Your task to perform on an android device: open sync settings in chrome Image 0: 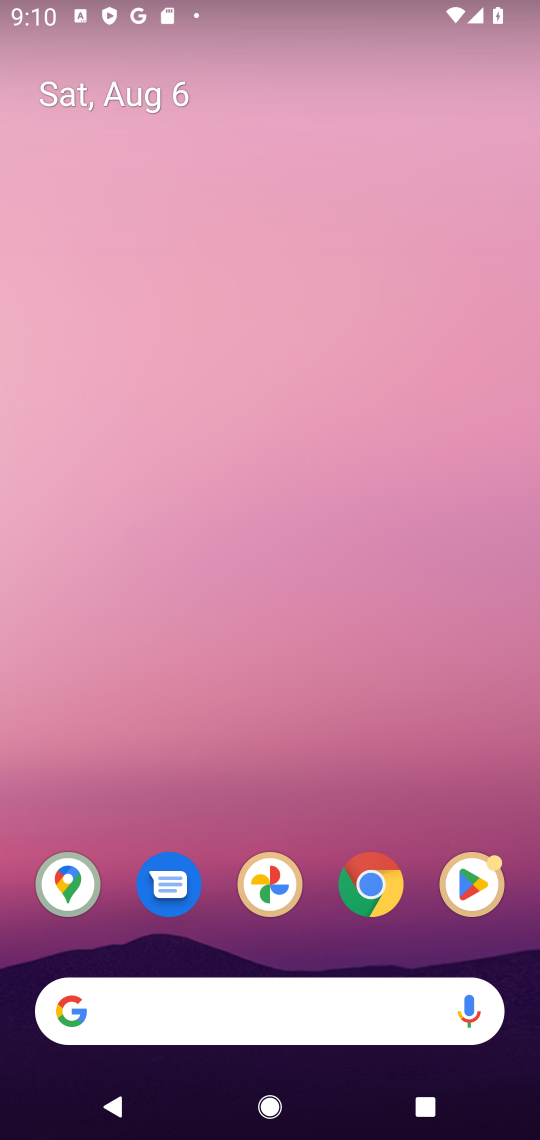
Step 0: click (369, 881)
Your task to perform on an android device: open sync settings in chrome Image 1: 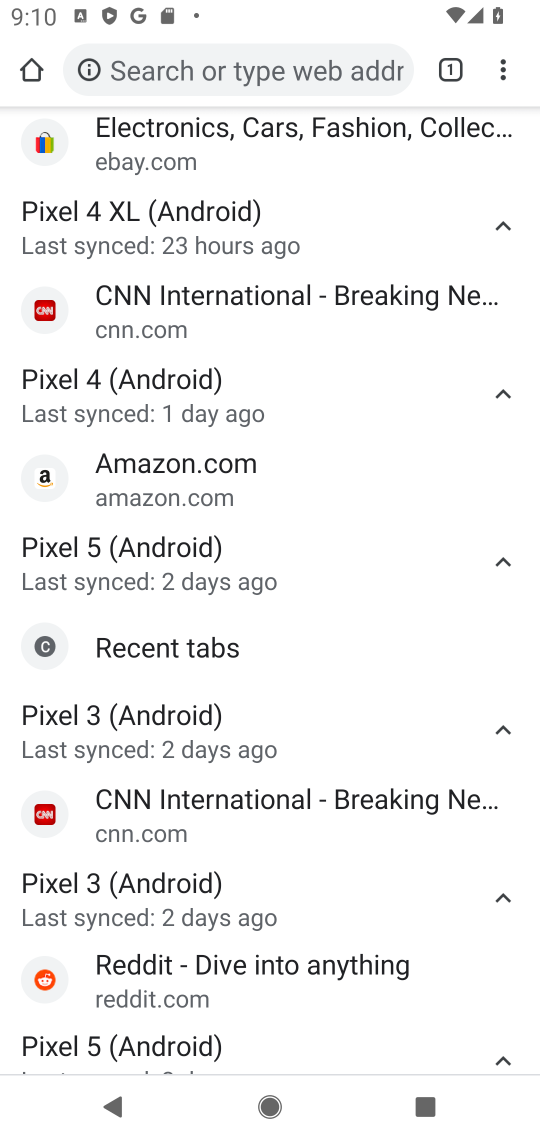
Step 1: click (493, 75)
Your task to perform on an android device: open sync settings in chrome Image 2: 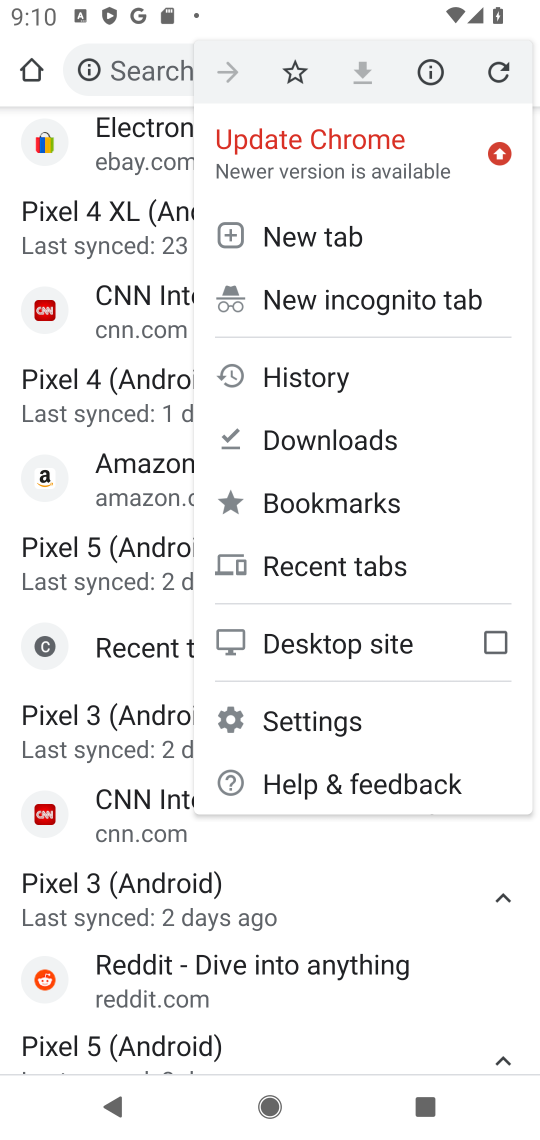
Step 2: click (296, 717)
Your task to perform on an android device: open sync settings in chrome Image 3: 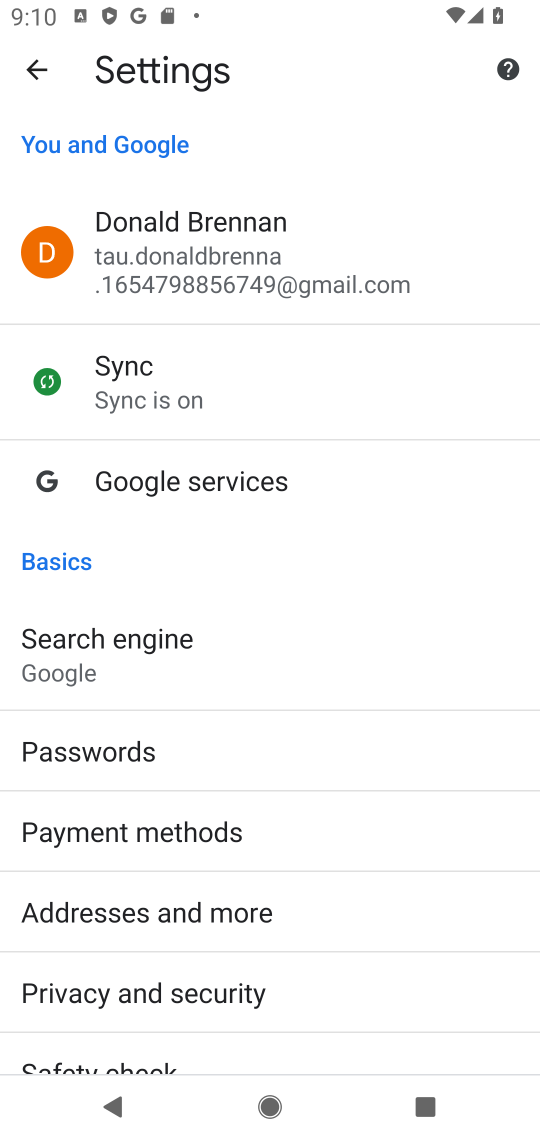
Step 3: click (125, 369)
Your task to perform on an android device: open sync settings in chrome Image 4: 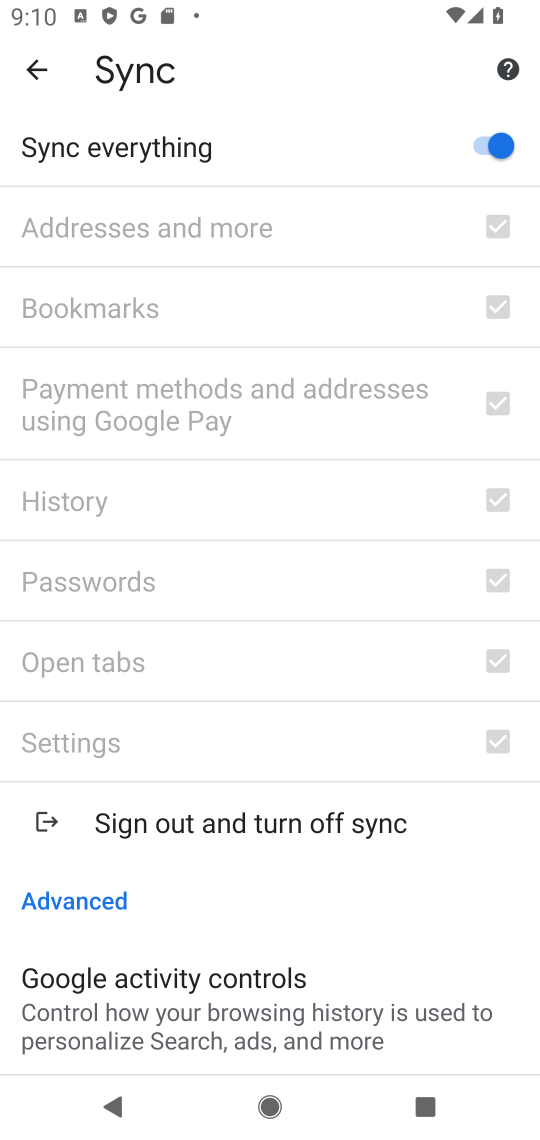
Step 4: task complete